Your task to perform on an android device: turn smart compose on in the gmail app Image 0: 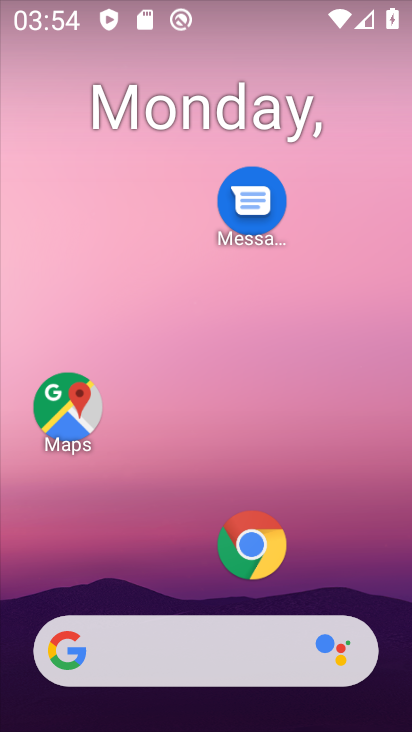
Step 0: drag from (153, 516) to (246, 94)
Your task to perform on an android device: turn smart compose on in the gmail app Image 1: 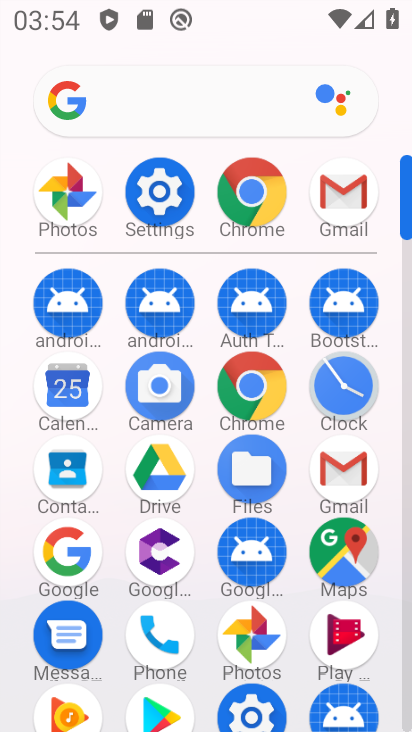
Step 1: click (340, 194)
Your task to perform on an android device: turn smart compose on in the gmail app Image 2: 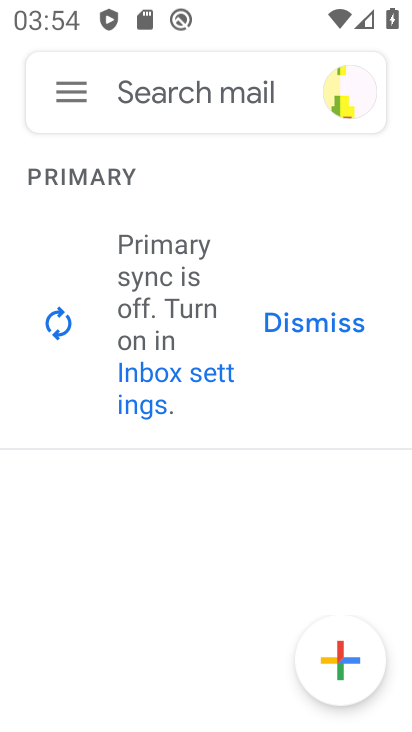
Step 2: click (71, 88)
Your task to perform on an android device: turn smart compose on in the gmail app Image 3: 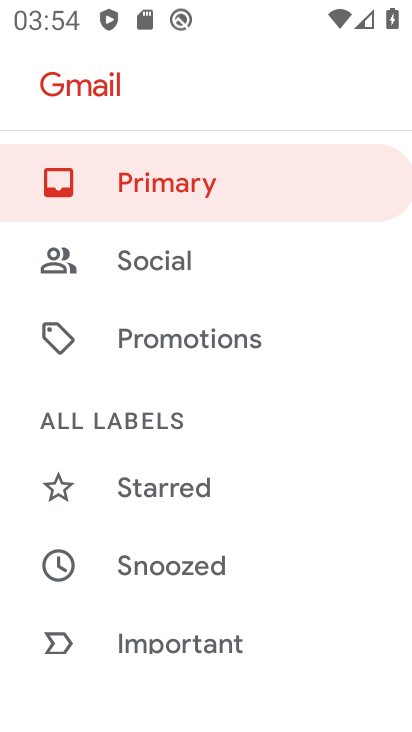
Step 3: drag from (171, 623) to (287, 41)
Your task to perform on an android device: turn smart compose on in the gmail app Image 4: 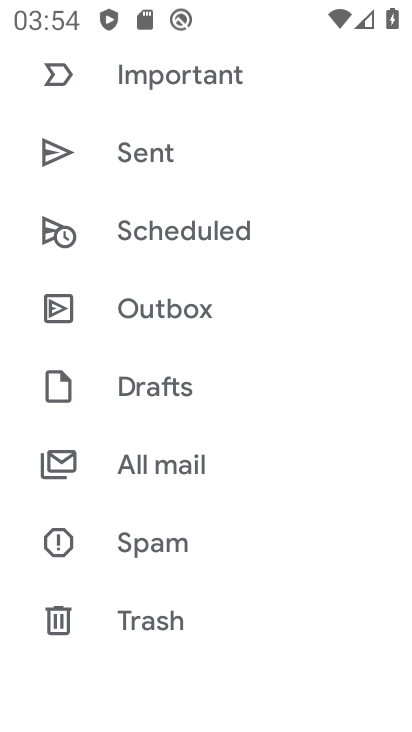
Step 4: drag from (137, 651) to (288, 133)
Your task to perform on an android device: turn smart compose on in the gmail app Image 5: 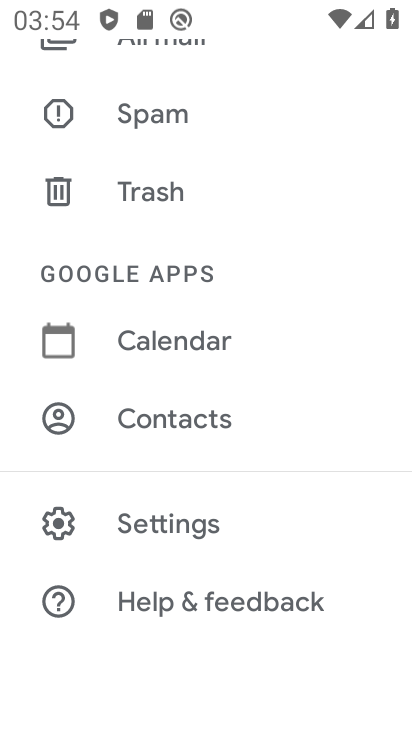
Step 5: drag from (165, 606) to (313, 113)
Your task to perform on an android device: turn smart compose on in the gmail app Image 6: 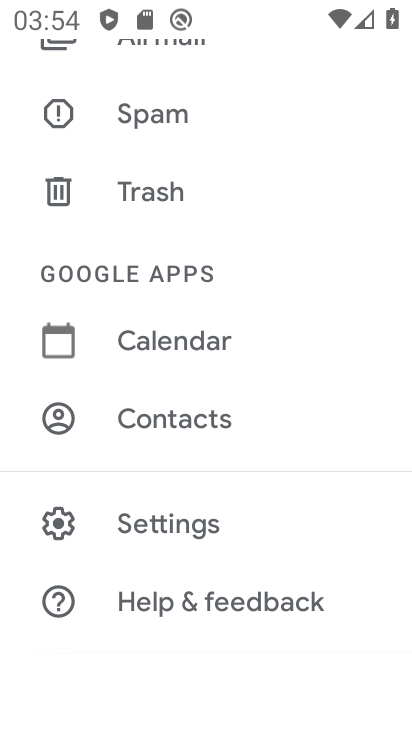
Step 6: click (170, 503)
Your task to perform on an android device: turn smart compose on in the gmail app Image 7: 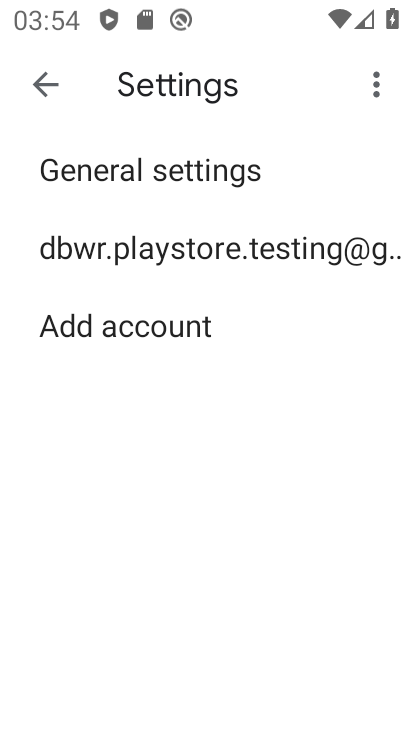
Step 7: click (171, 258)
Your task to perform on an android device: turn smart compose on in the gmail app Image 8: 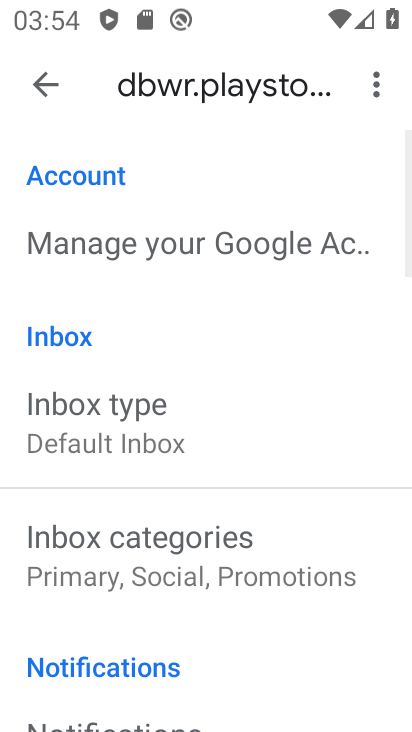
Step 8: task complete